Your task to perform on an android device: Open Yahoo.com Image 0: 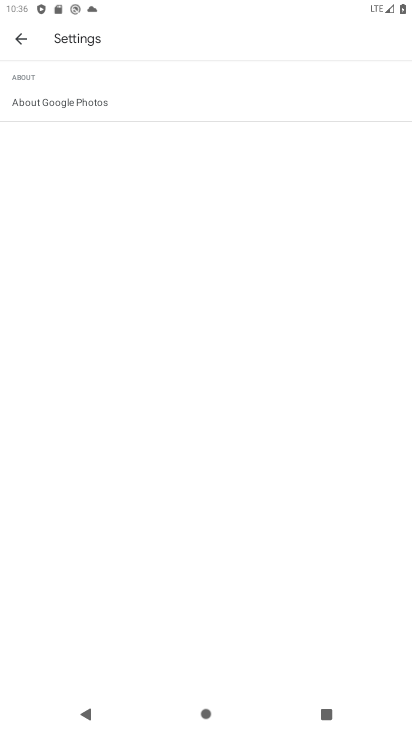
Step 0: press home button
Your task to perform on an android device: Open Yahoo.com Image 1: 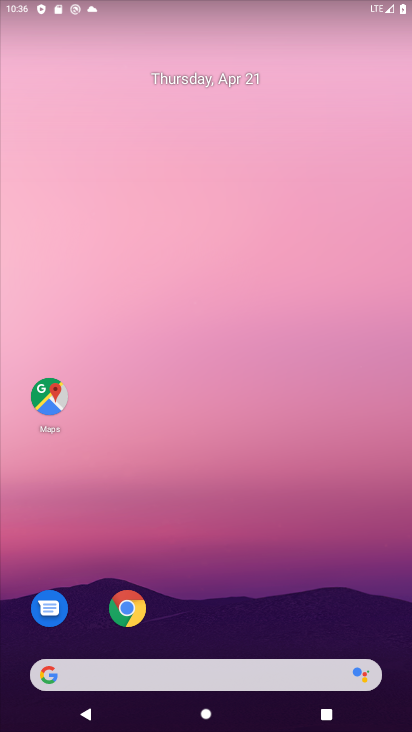
Step 1: click (124, 614)
Your task to perform on an android device: Open Yahoo.com Image 2: 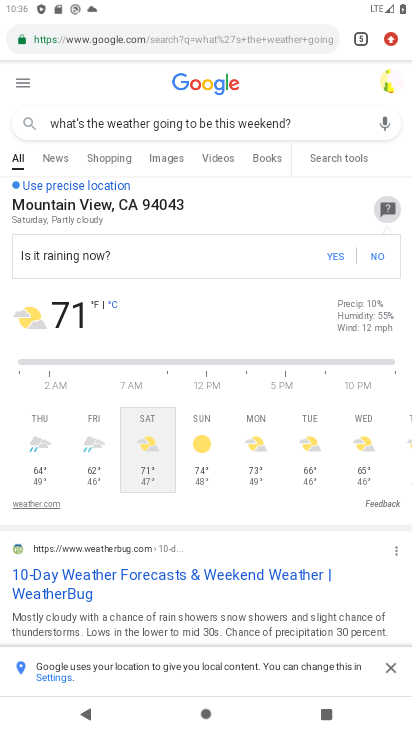
Step 2: click (358, 37)
Your task to perform on an android device: Open Yahoo.com Image 3: 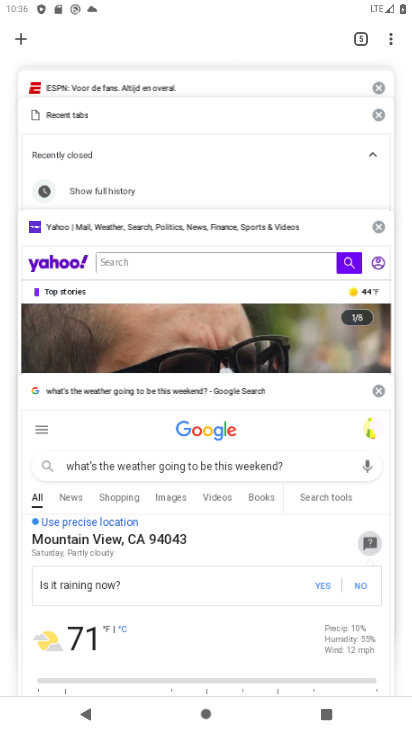
Step 3: click (48, 321)
Your task to perform on an android device: Open Yahoo.com Image 4: 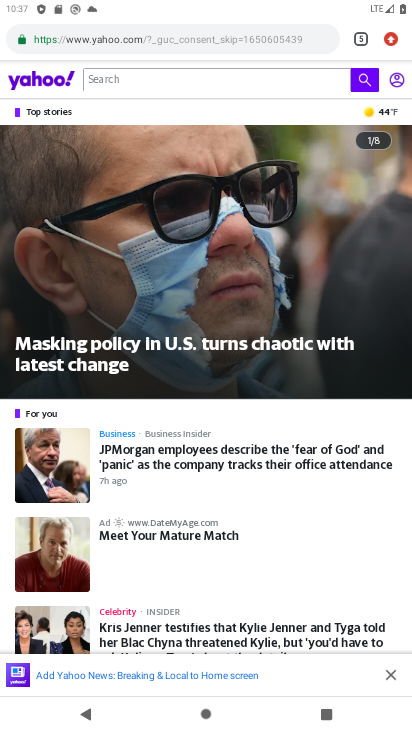
Step 4: task complete